Your task to perform on an android device: change notification settings in the gmail app Image 0: 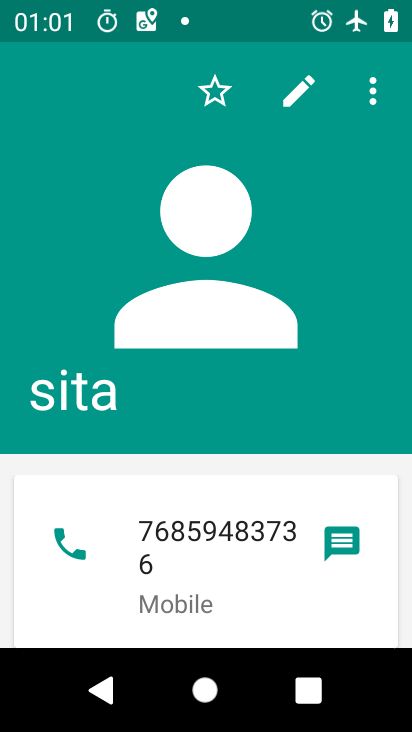
Step 0: press home button
Your task to perform on an android device: change notification settings in the gmail app Image 1: 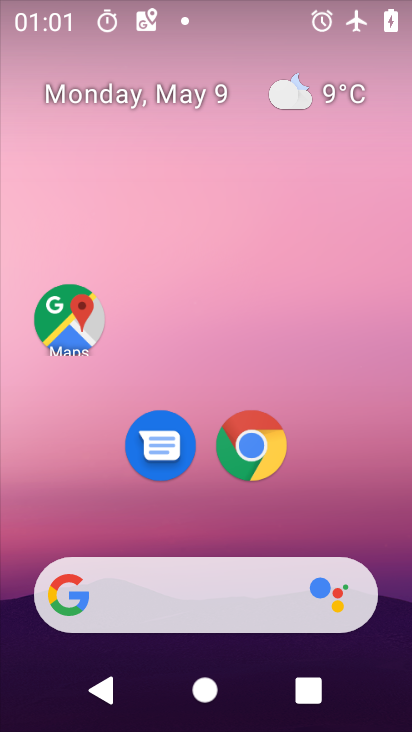
Step 1: drag from (359, 551) to (347, 17)
Your task to perform on an android device: change notification settings in the gmail app Image 2: 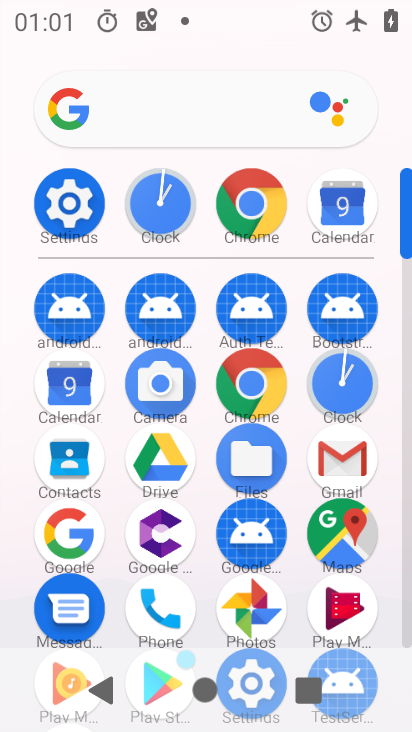
Step 2: click (347, 456)
Your task to perform on an android device: change notification settings in the gmail app Image 3: 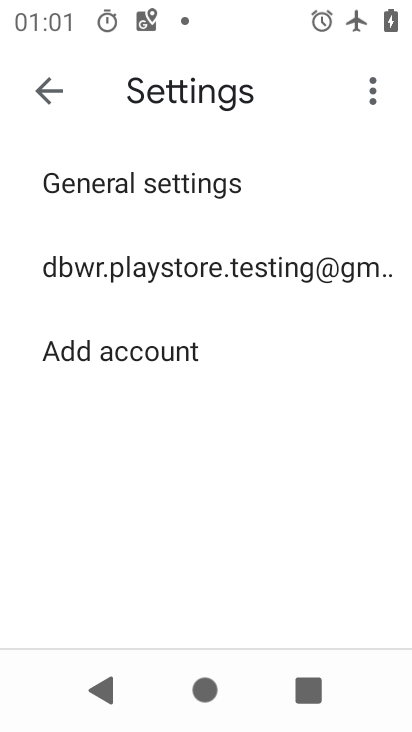
Step 3: click (96, 180)
Your task to perform on an android device: change notification settings in the gmail app Image 4: 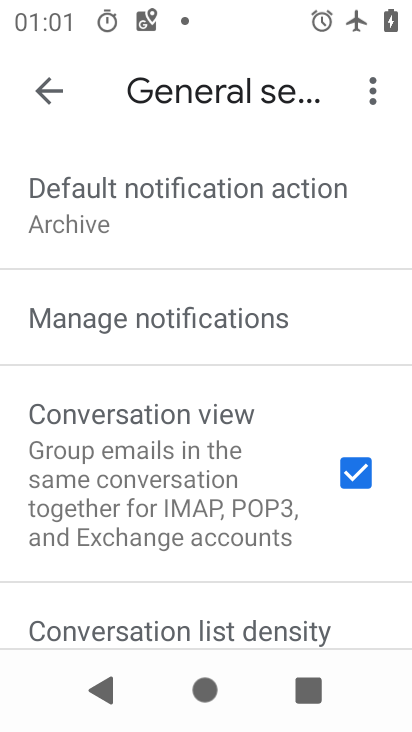
Step 4: click (138, 326)
Your task to perform on an android device: change notification settings in the gmail app Image 5: 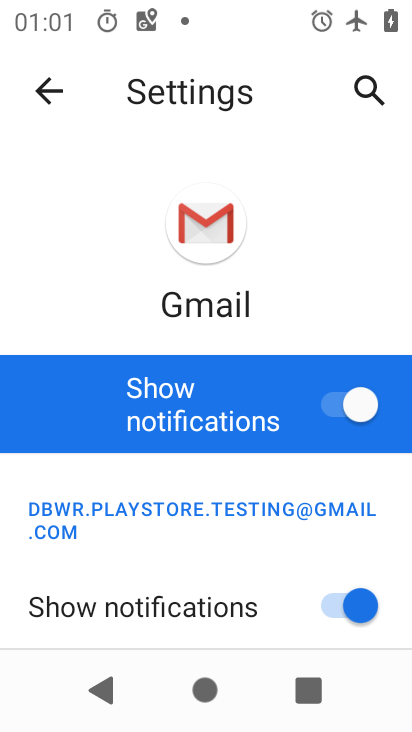
Step 5: click (359, 414)
Your task to perform on an android device: change notification settings in the gmail app Image 6: 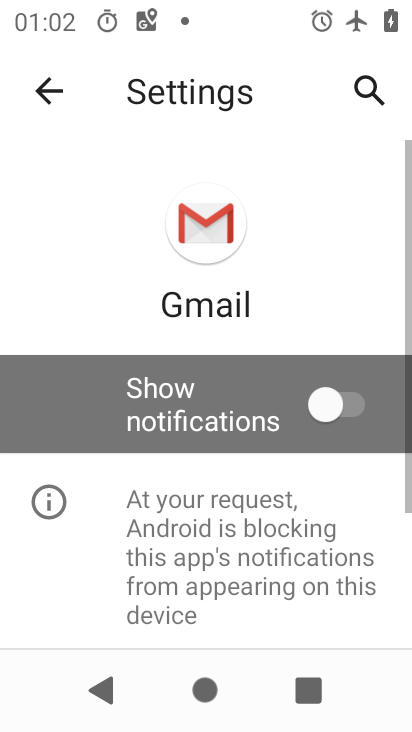
Step 6: task complete